Your task to perform on an android device: change the clock display to show seconds Image 0: 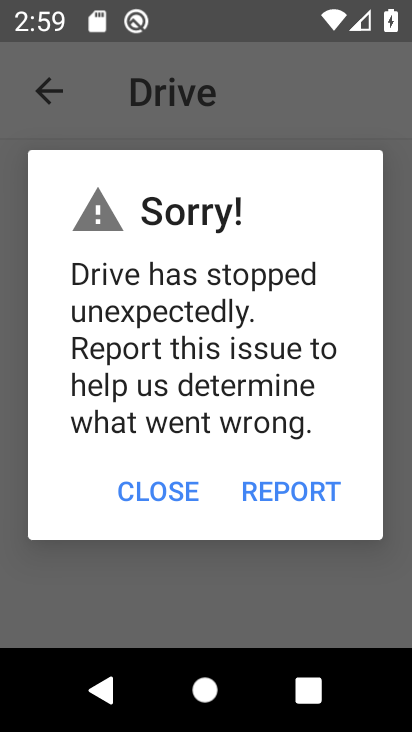
Step 0: press home button
Your task to perform on an android device: change the clock display to show seconds Image 1: 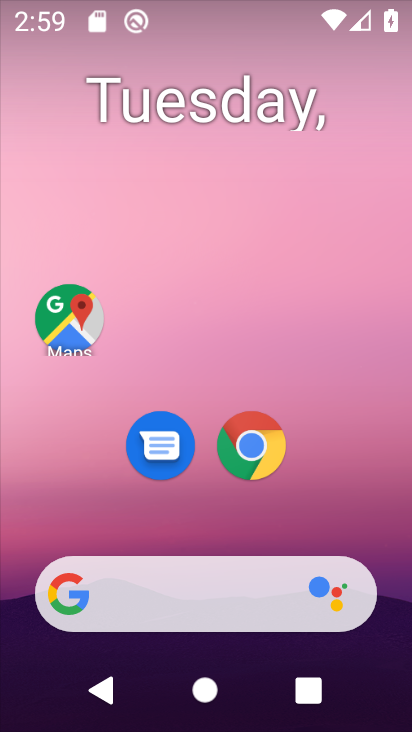
Step 1: drag from (362, 556) to (369, 20)
Your task to perform on an android device: change the clock display to show seconds Image 2: 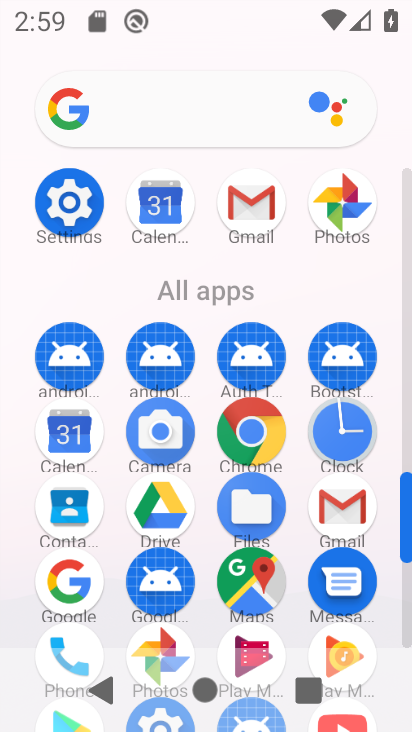
Step 2: click (344, 432)
Your task to perform on an android device: change the clock display to show seconds Image 3: 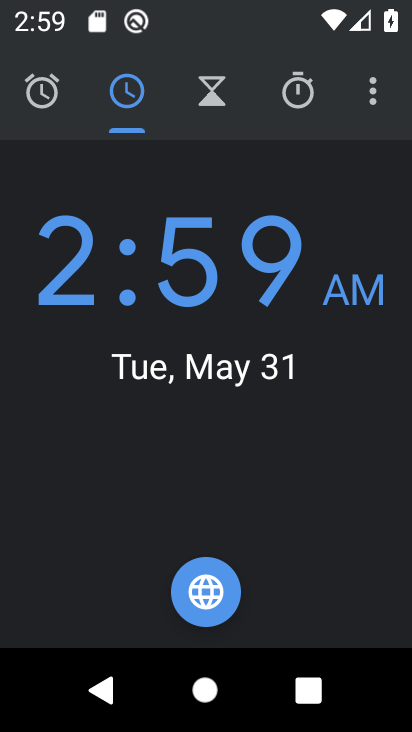
Step 3: click (375, 92)
Your task to perform on an android device: change the clock display to show seconds Image 4: 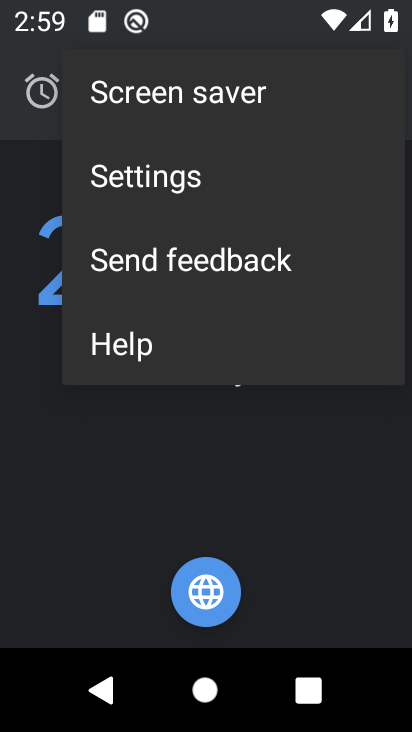
Step 4: click (158, 174)
Your task to perform on an android device: change the clock display to show seconds Image 5: 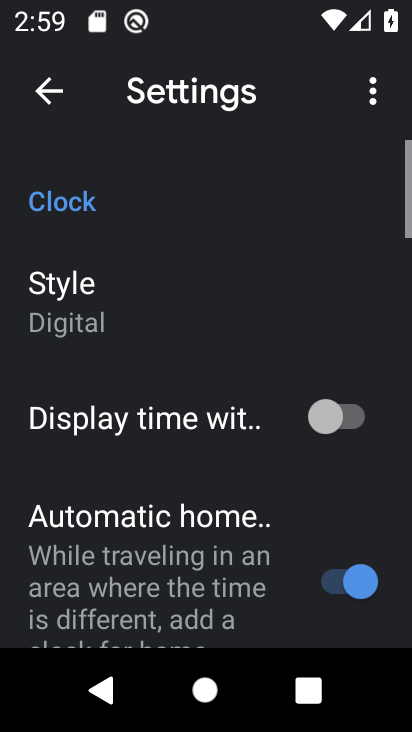
Step 5: click (332, 433)
Your task to perform on an android device: change the clock display to show seconds Image 6: 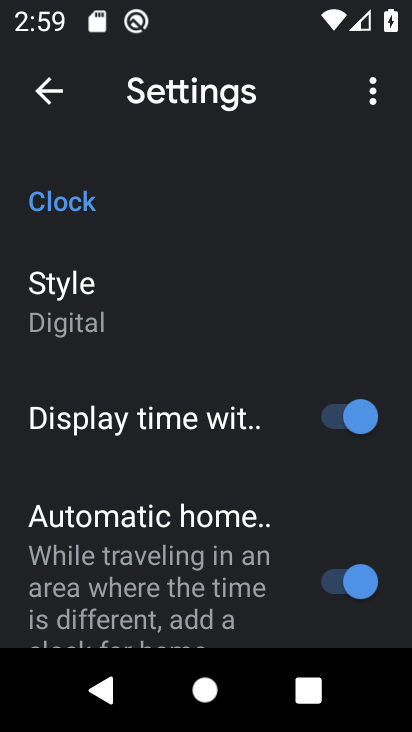
Step 6: task complete